Your task to perform on an android device: search for starred emails in the gmail app Image 0: 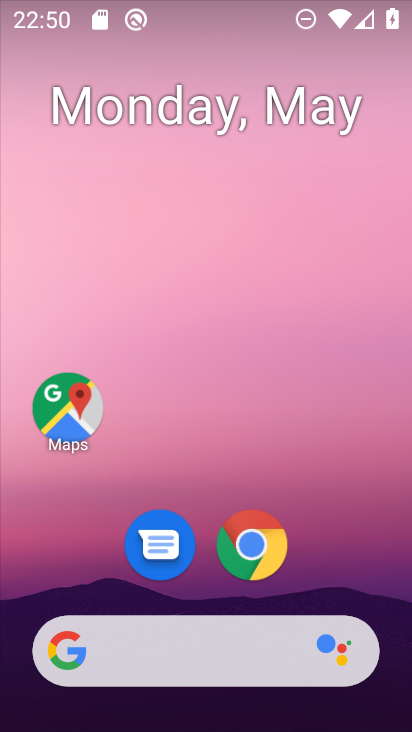
Step 0: drag from (325, 545) to (236, 172)
Your task to perform on an android device: search for starred emails in the gmail app Image 1: 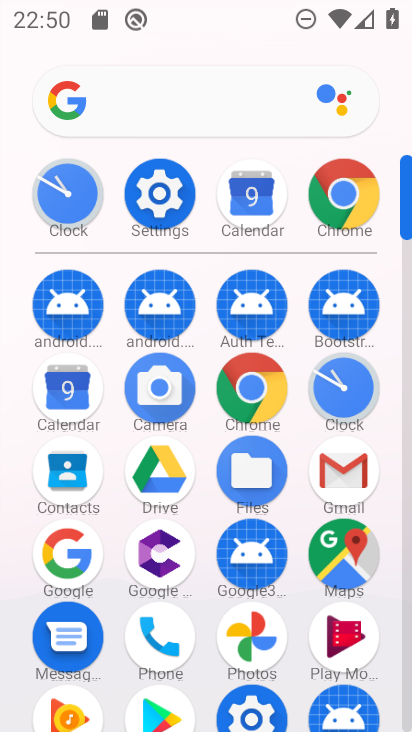
Step 1: click (345, 484)
Your task to perform on an android device: search for starred emails in the gmail app Image 2: 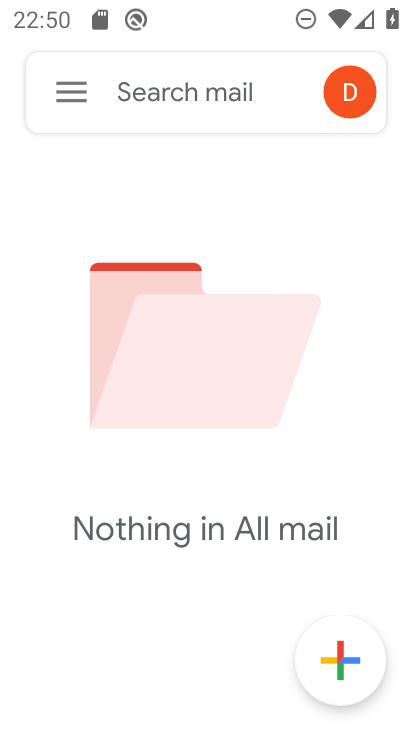
Step 2: click (75, 89)
Your task to perform on an android device: search for starred emails in the gmail app Image 3: 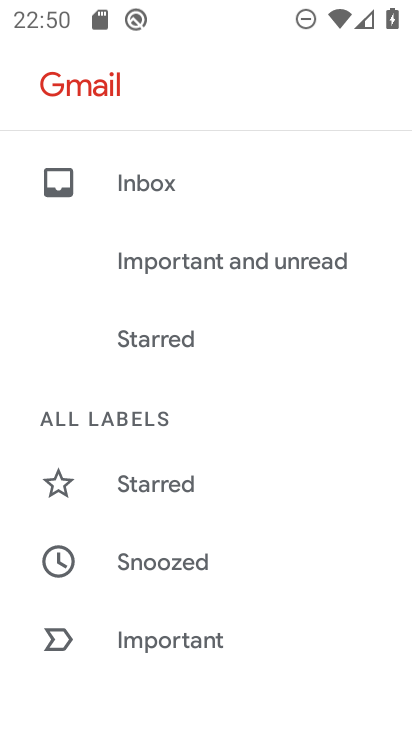
Step 3: click (146, 481)
Your task to perform on an android device: search for starred emails in the gmail app Image 4: 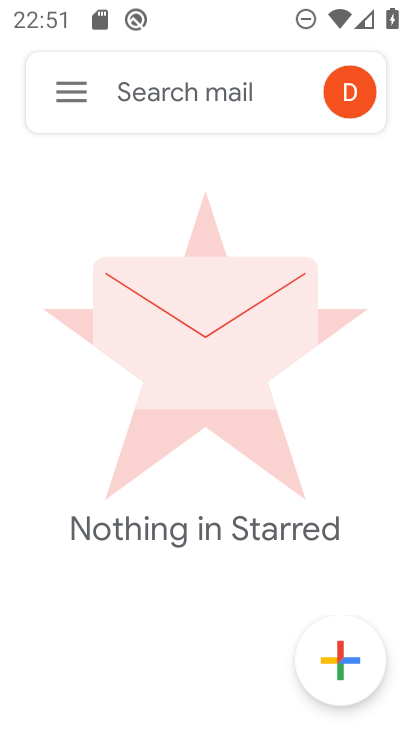
Step 4: task complete